Your task to perform on an android device: set default search engine in the chrome app Image 0: 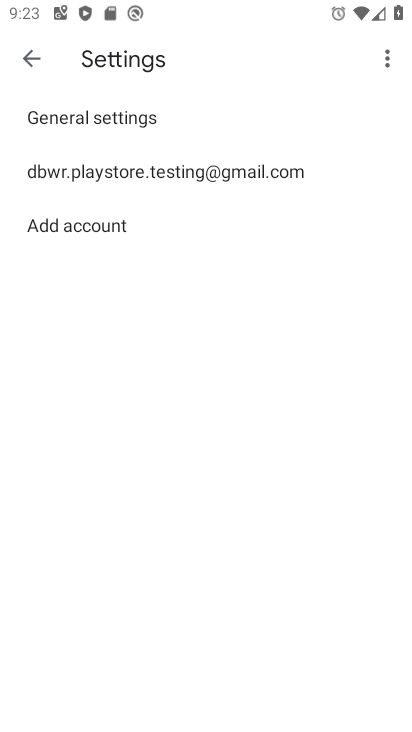
Step 0: press home button
Your task to perform on an android device: set default search engine in the chrome app Image 1: 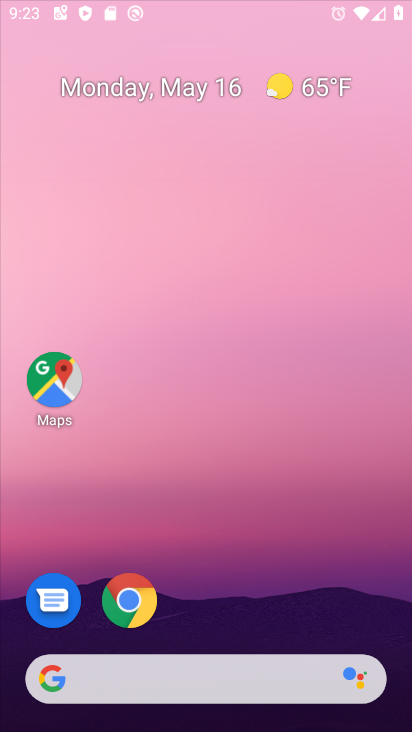
Step 1: drag from (236, 662) to (241, 2)
Your task to perform on an android device: set default search engine in the chrome app Image 2: 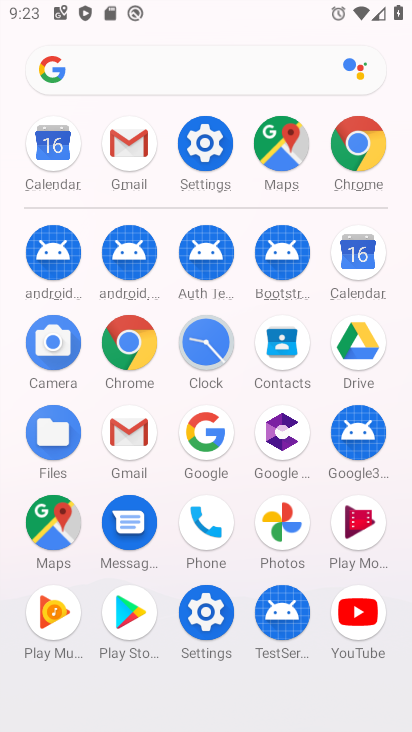
Step 2: click (129, 334)
Your task to perform on an android device: set default search engine in the chrome app Image 3: 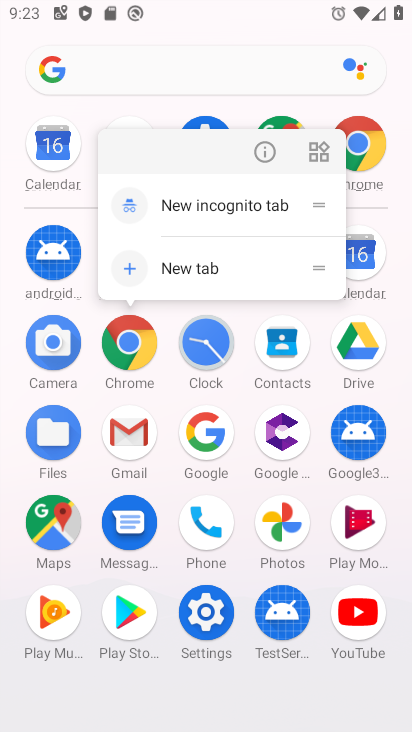
Step 3: click (274, 149)
Your task to perform on an android device: set default search engine in the chrome app Image 4: 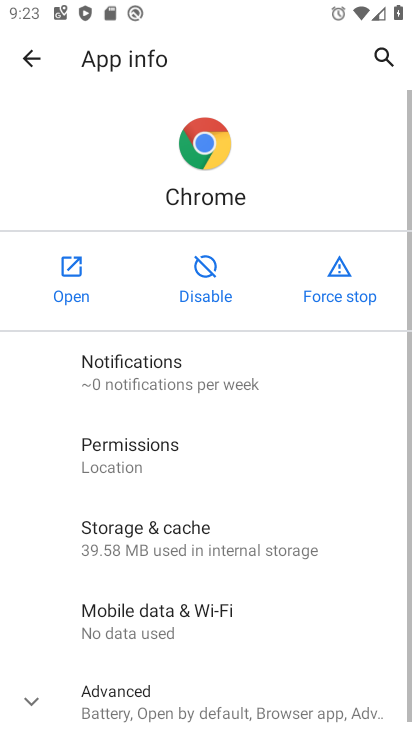
Step 4: click (68, 289)
Your task to perform on an android device: set default search engine in the chrome app Image 5: 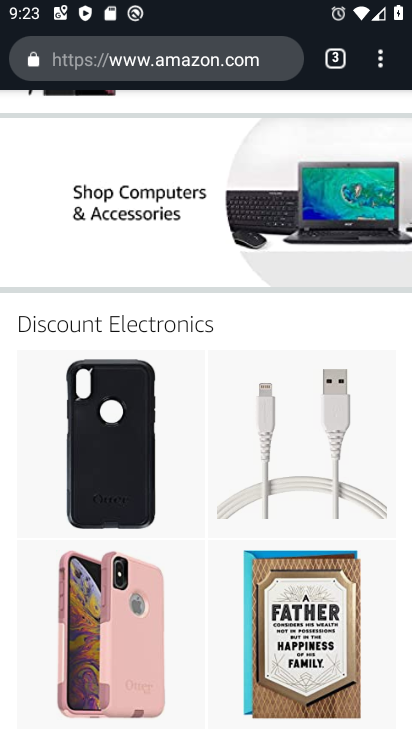
Step 5: click (380, 72)
Your task to perform on an android device: set default search engine in the chrome app Image 6: 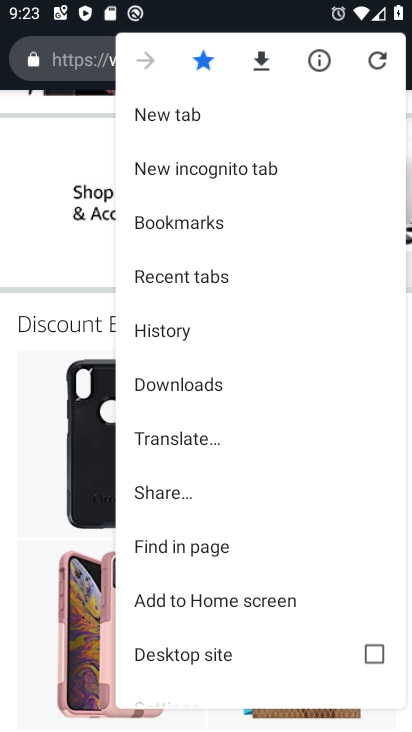
Step 6: drag from (234, 629) to (297, 190)
Your task to perform on an android device: set default search engine in the chrome app Image 7: 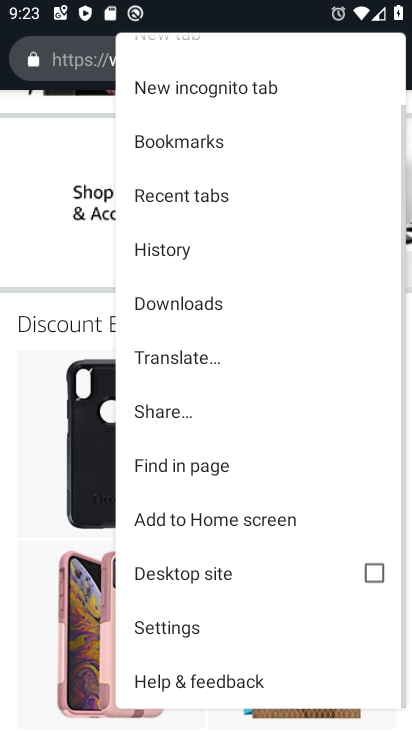
Step 7: drag from (206, 604) to (305, 185)
Your task to perform on an android device: set default search engine in the chrome app Image 8: 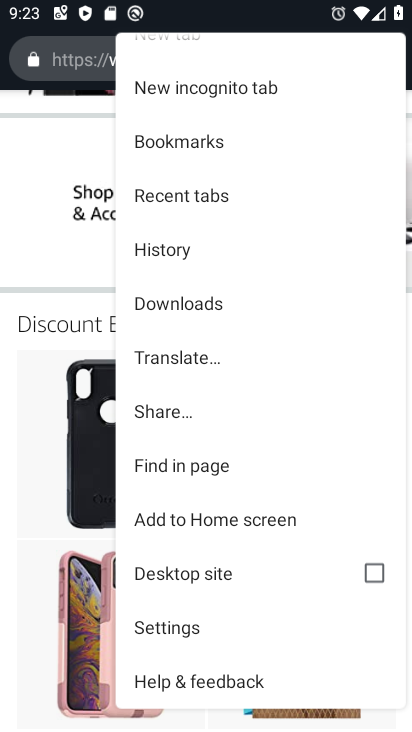
Step 8: click (204, 616)
Your task to perform on an android device: set default search engine in the chrome app Image 9: 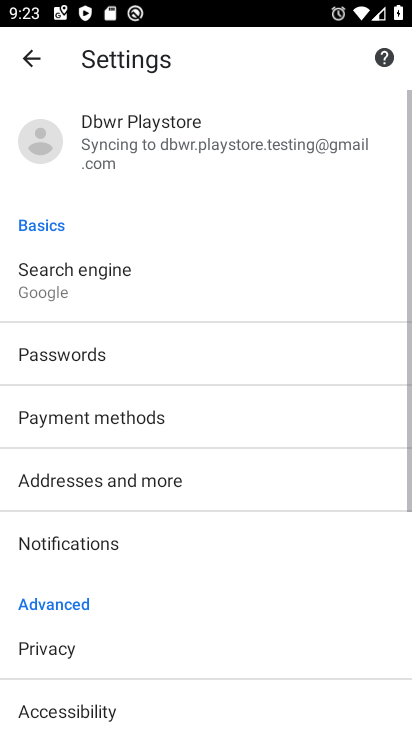
Step 9: drag from (168, 656) to (299, 20)
Your task to perform on an android device: set default search engine in the chrome app Image 10: 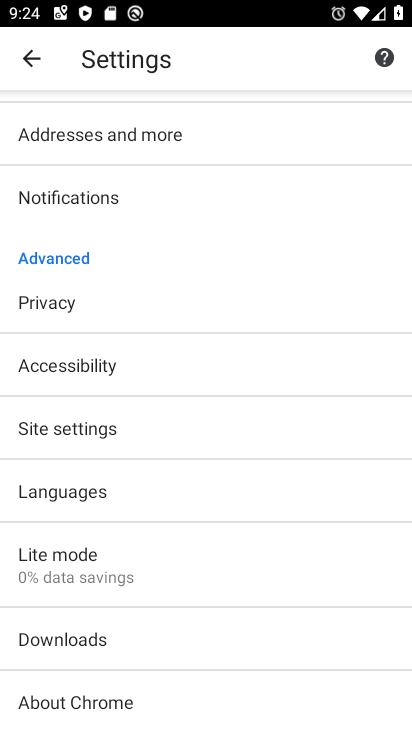
Step 10: click (102, 443)
Your task to perform on an android device: set default search engine in the chrome app Image 11: 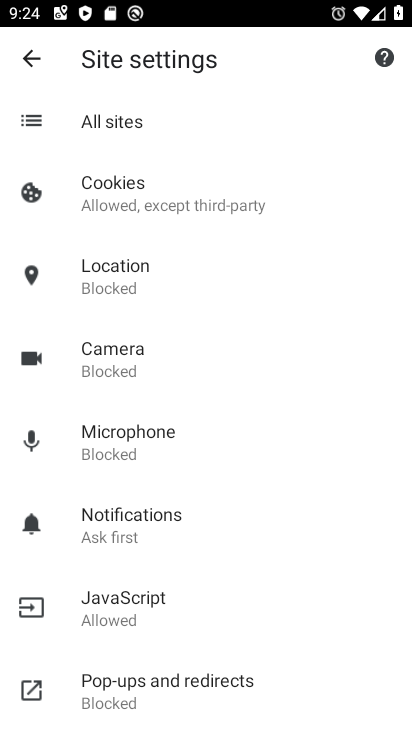
Step 11: click (37, 62)
Your task to perform on an android device: set default search engine in the chrome app Image 12: 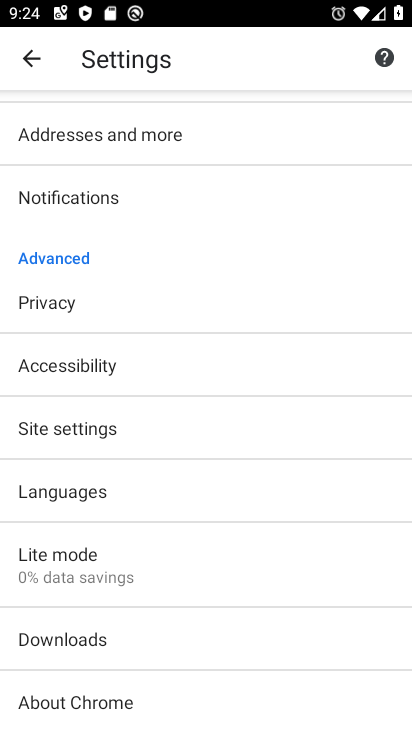
Step 12: drag from (197, 168) to (248, 721)
Your task to perform on an android device: set default search engine in the chrome app Image 13: 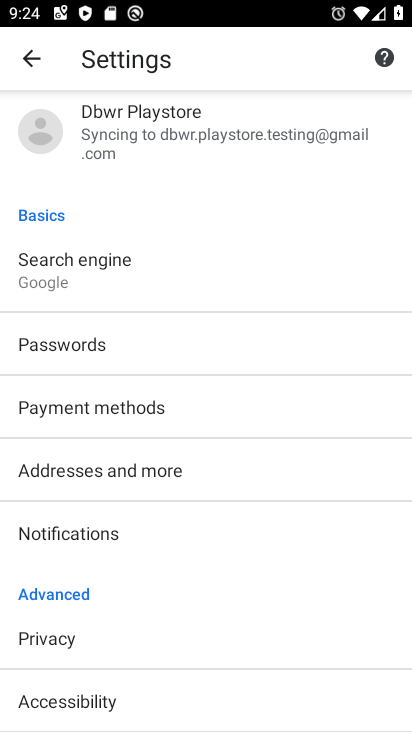
Step 13: click (141, 272)
Your task to perform on an android device: set default search engine in the chrome app Image 14: 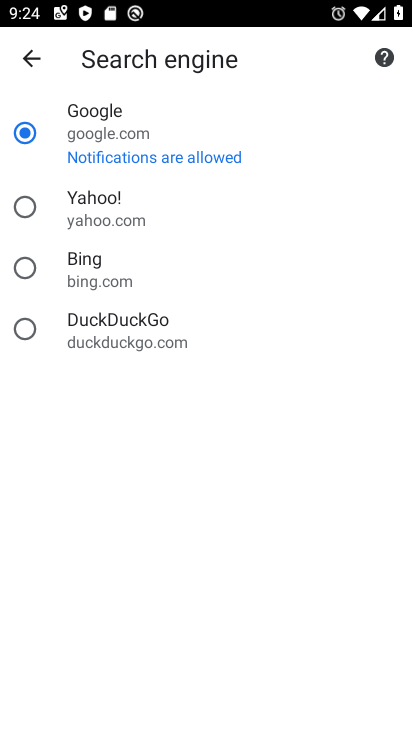
Step 14: drag from (234, 541) to (266, 147)
Your task to perform on an android device: set default search engine in the chrome app Image 15: 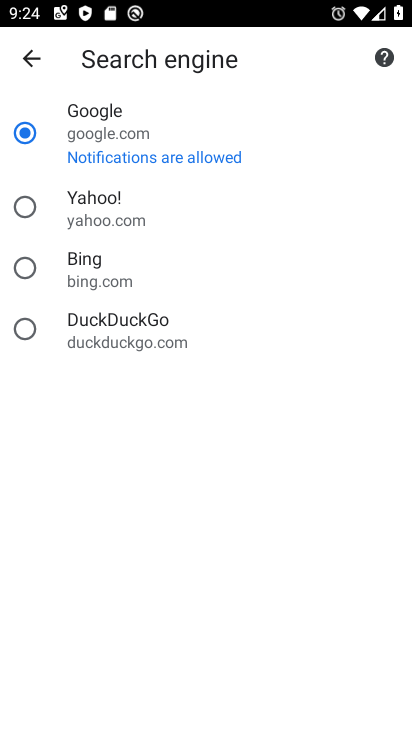
Step 15: click (102, 209)
Your task to perform on an android device: set default search engine in the chrome app Image 16: 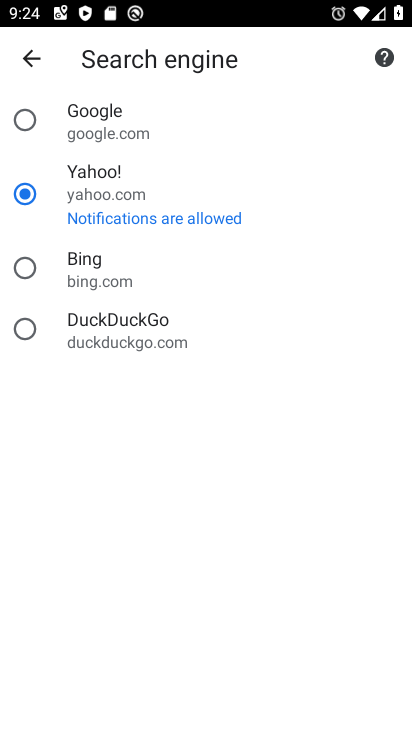
Step 16: task complete